Your task to perform on an android device: delete the emails in spam in the gmail app Image 0: 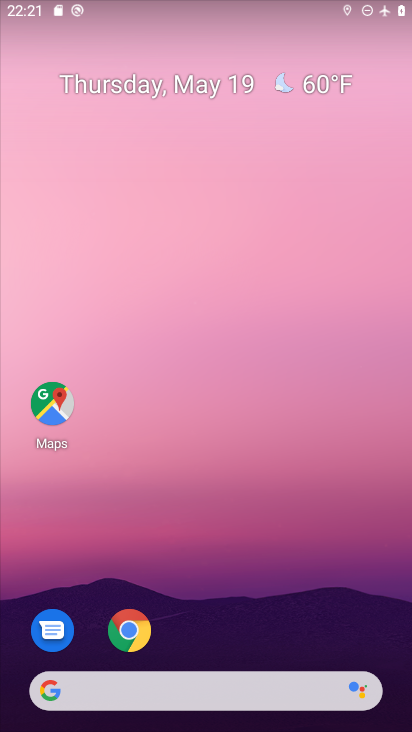
Step 0: drag from (279, 504) to (237, 19)
Your task to perform on an android device: delete the emails in spam in the gmail app Image 1: 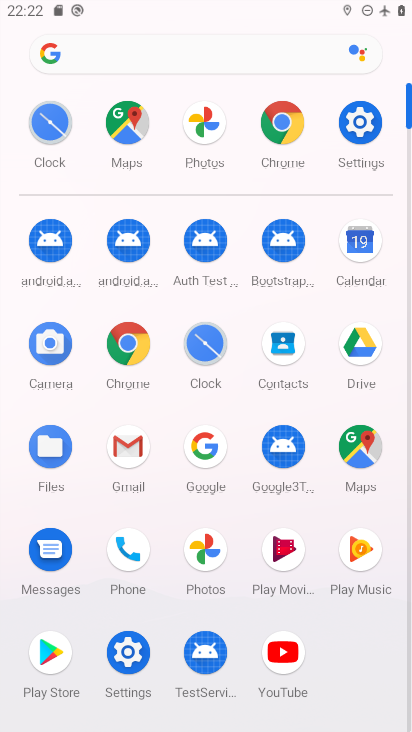
Step 1: click (124, 446)
Your task to perform on an android device: delete the emails in spam in the gmail app Image 2: 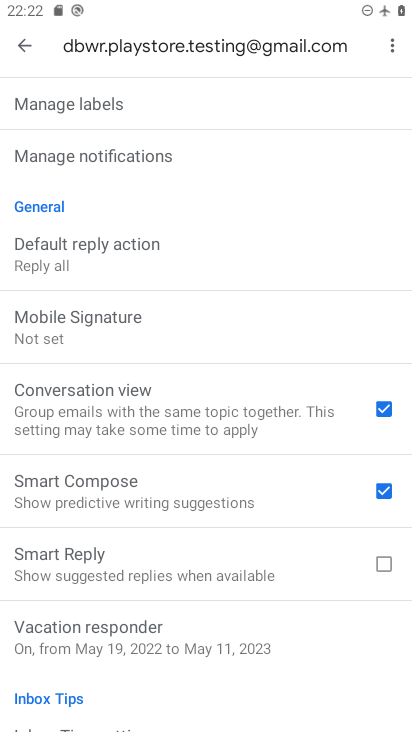
Step 2: click (23, 41)
Your task to perform on an android device: delete the emails in spam in the gmail app Image 3: 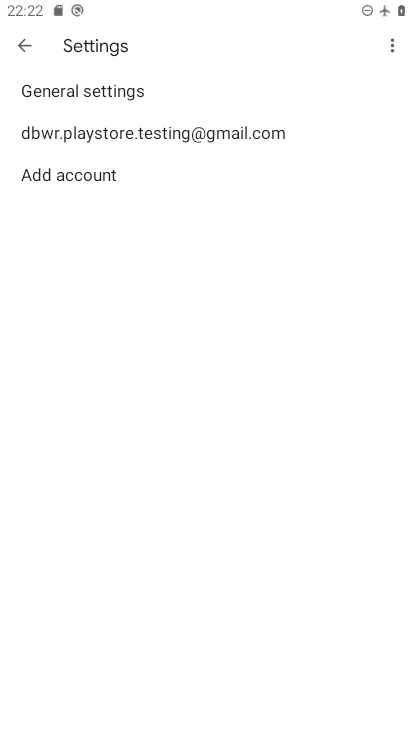
Step 3: click (23, 41)
Your task to perform on an android device: delete the emails in spam in the gmail app Image 4: 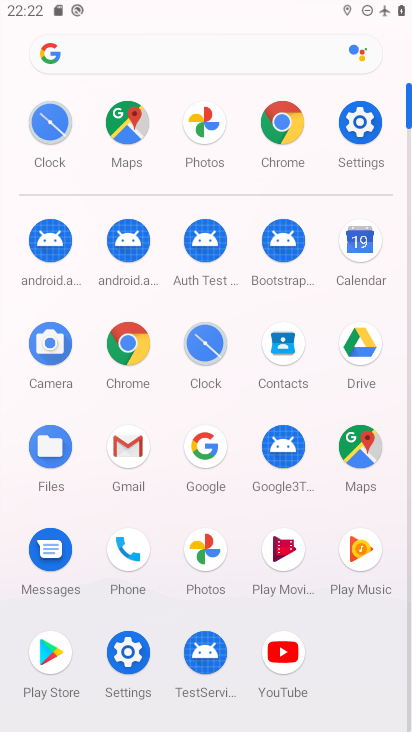
Step 4: click (123, 442)
Your task to perform on an android device: delete the emails in spam in the gmail app Image 5: 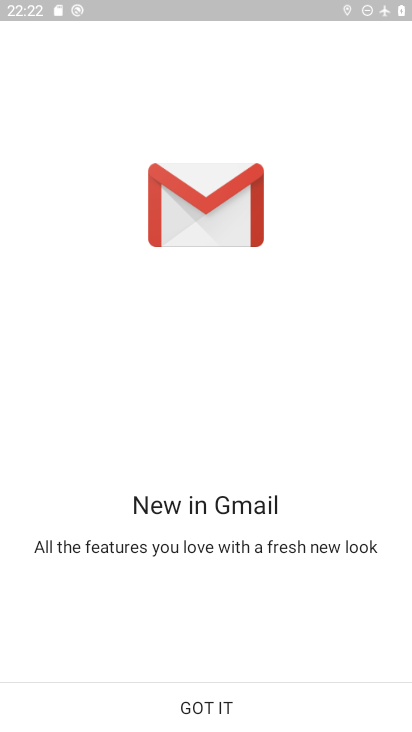
Step 5: click (205, 700)
Your task to perform on an android device: delete the emails in spam in the gmail app Image 6: 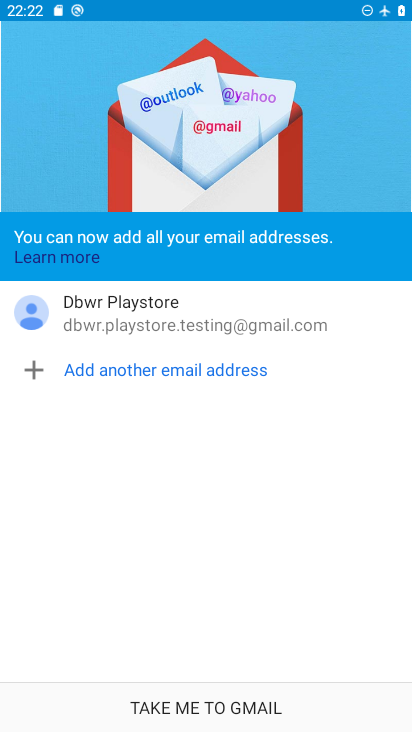
Step 6: click (205, 700)
Your task to perform on an android device: delete the emails in spam in the gmail app Image 7: 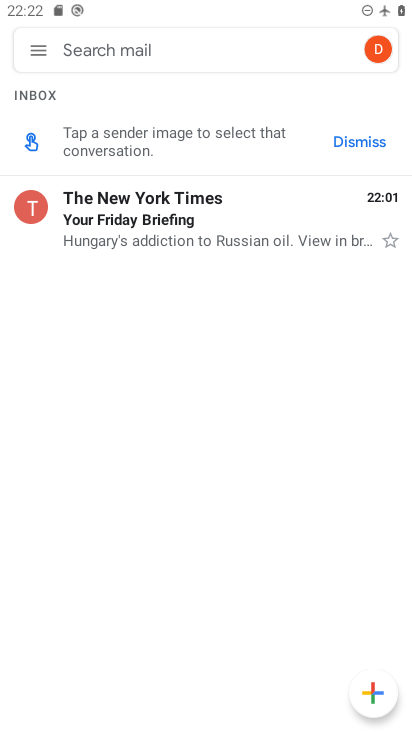
Step 7: click (37, 48)
Your task to perform on an android device: delete the emails in spam in the gmail app Image 8: 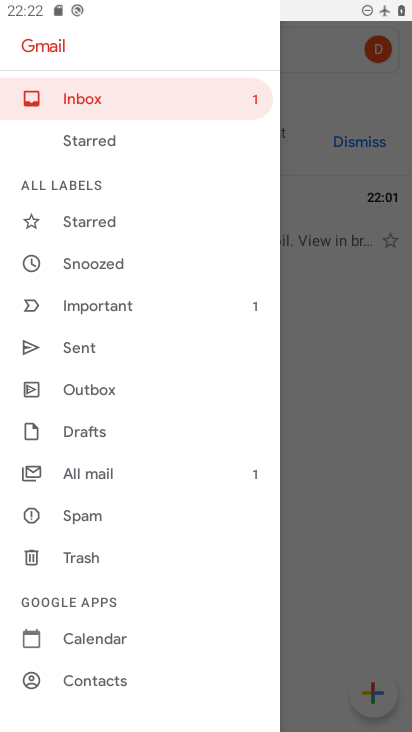
Step 8: click (91, 512)
Your task to perform on an android device: delete the emails in spam in the gmail app Image 9: 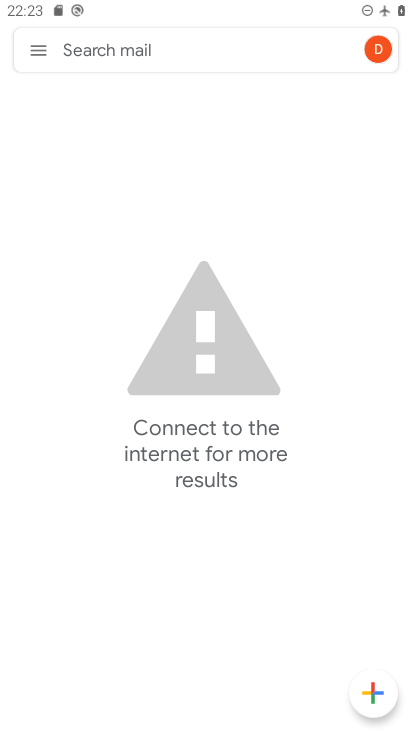
Step 9: task complete